Your task to perform on an android device: Is it going to rain this weekend? Image 0: 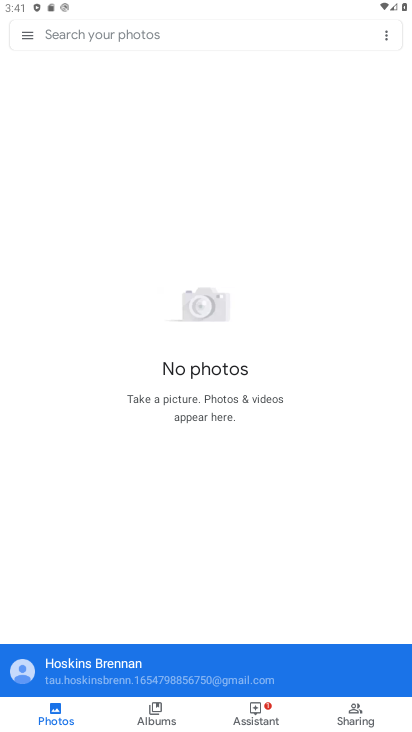
Step 0: drag from (109, 686) to (128, 331)
Your task to perform on an android device: Is it going to rain this weekend? Image 1: 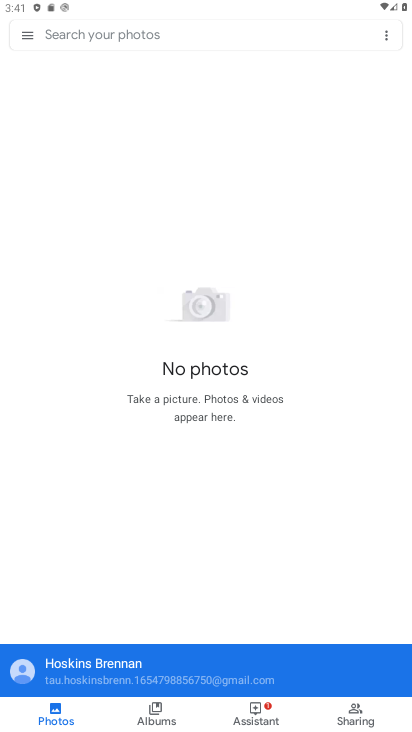
Step 1: press home button
Your task to perform on an android device: Is it going to rain this weekend? Image 2: 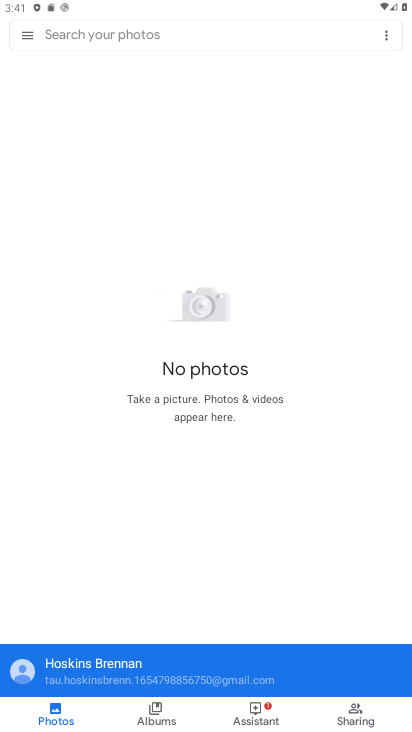
Step 2: press back button
Your task to perform on an android device: Is it going to rain this weekend? Image 3: 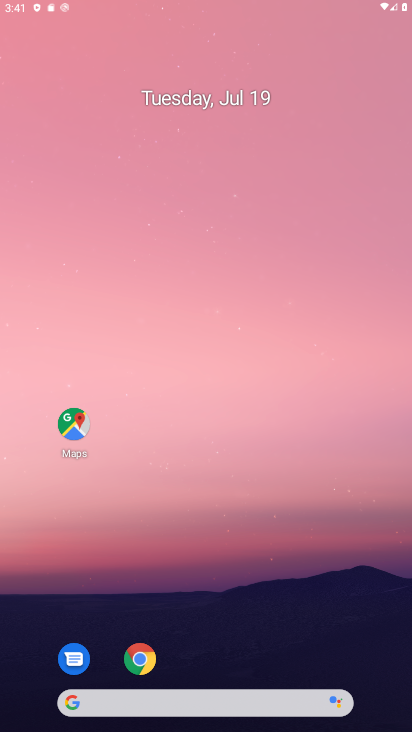
Step 3: press back button
Your task to perform on an android device: Is it going to rain this weekend? Image 4: 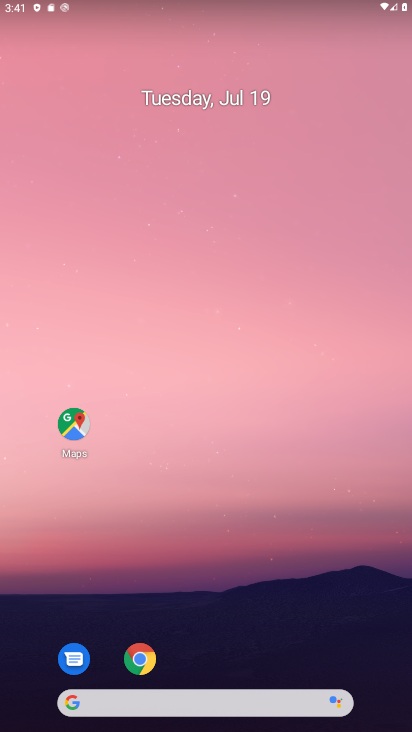
Step 4: drag from (38, 134) to (407, 300)
Your task to perform on an android device: Is it going to rain this weekend? Image 5: 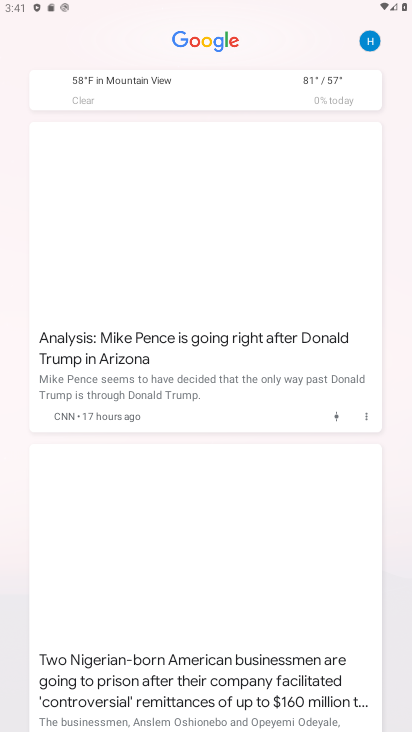
Step 5: click (190, 238)
Your task to perform on an android device: Is it going to rain this weekend? Image 6: 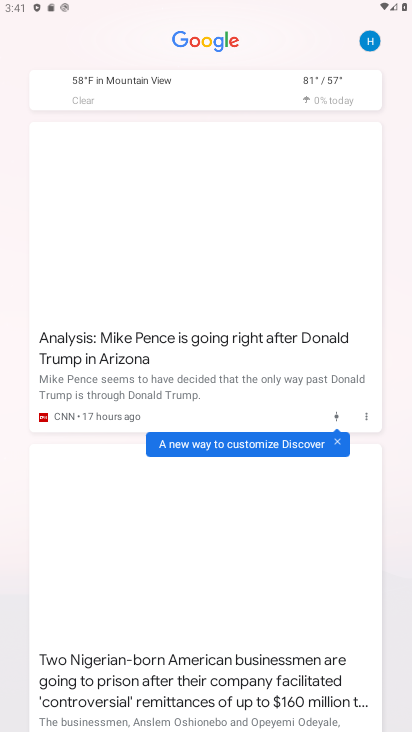
Step 6: click (189, 239)
Your task to perform on an android device: Is it going to rain this weekend? Image 7: 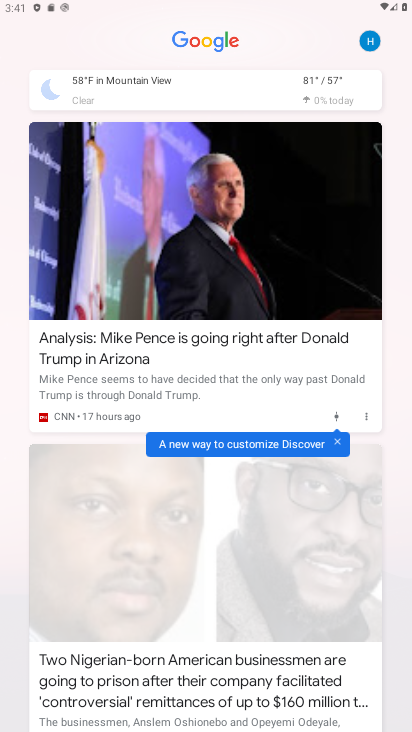
Step 7: click (146, 86)
Your task to perform on an android device: Is it going to rain this weekend? Image 8: 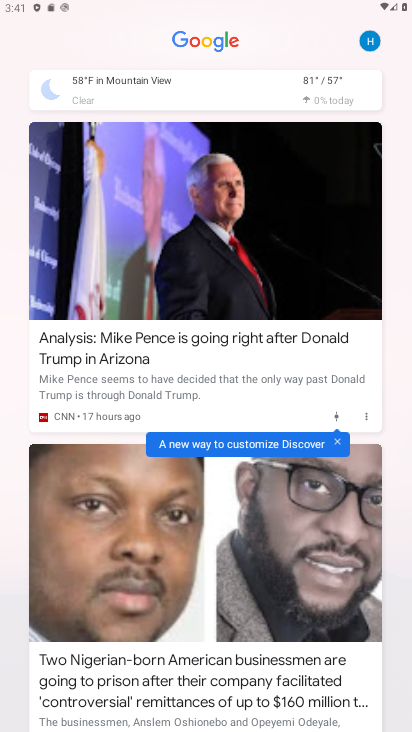
Step 8: click (144, 86)
Your task to perform on an android device: Is it going to rain this weekend? Image 9: 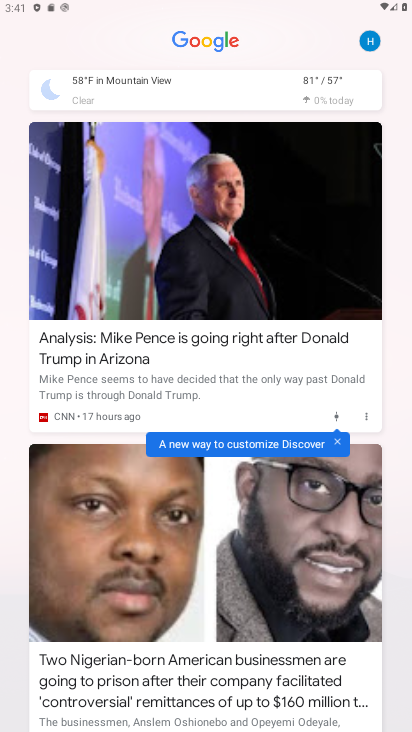
Step 9: click (144, 86)
Your task to perform on an android device: Is it going to rain this weekend? Image 10: 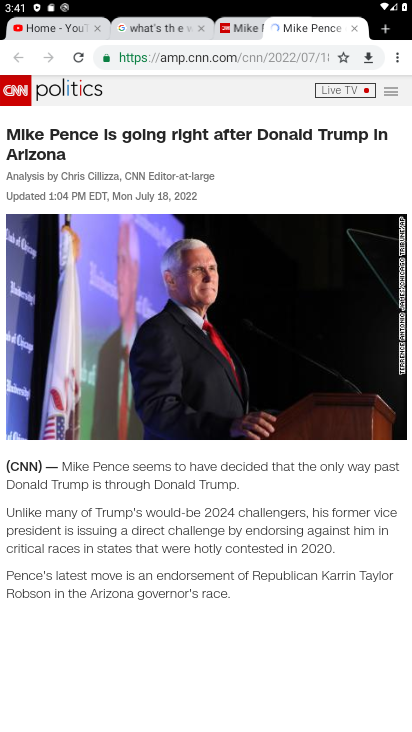
Step 10: click (142, 32)
Your task to perform on an android device: Is it going to rain this weekend? Image 11: 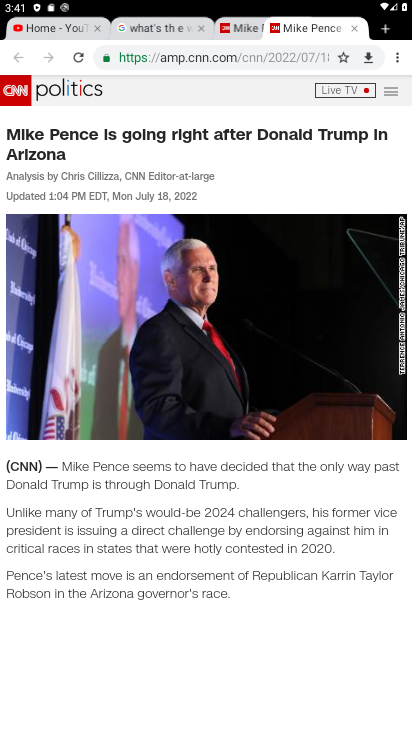
Step 11: click (142, 32)
Your task to perform on an android device: Is it going to rain this weekend? Image 12: 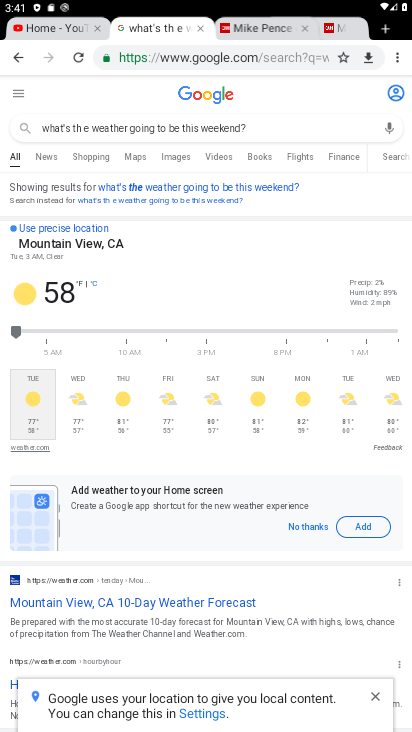
Step 12: task complete